Your task to perform on an android device: change notifications settings Image 0: 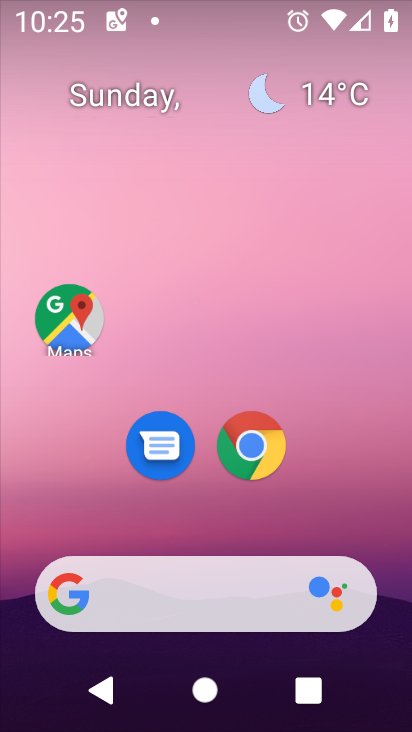
Step 0: drag from (219, 530) to (22, 284)
Your task to perform on an android device: change notifications settings Image 1: 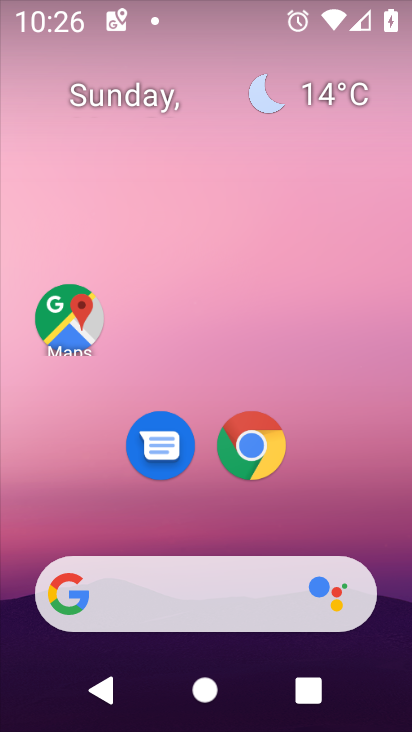
Step 1: drag from (176, 546) to (305, 5)
Your task to perform on an android device: change notifications settings Image 2: 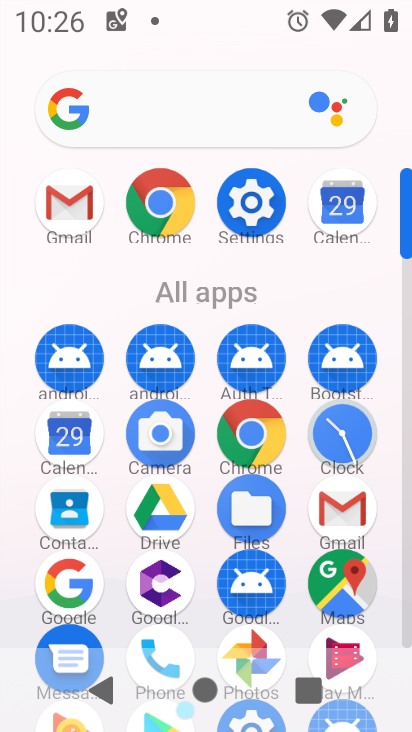
Step 2: click (253, 176)
Your task to perform on an android device: change notifications settings Image 3: 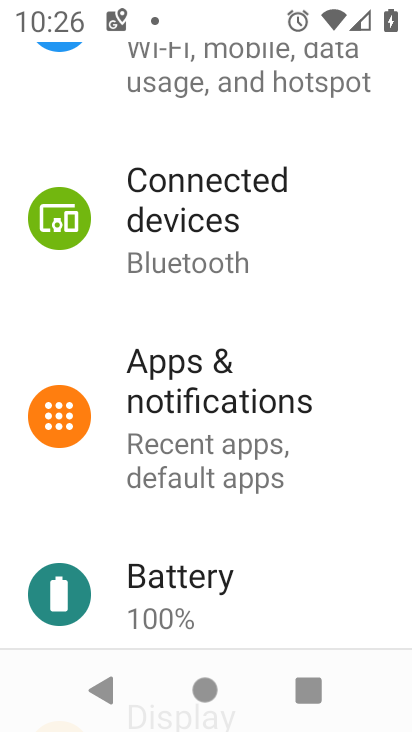
Step 3: drag from (190, 518) to (259, 90)
Your task to perform on an android device: change notifications settings Image 4: 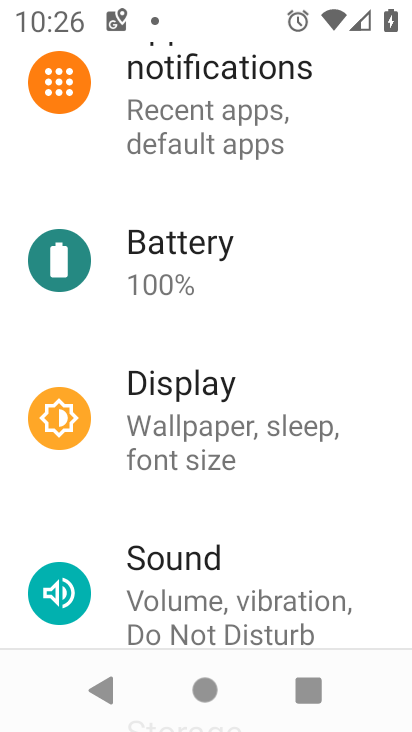
Step 4: drag from (237, 148) to (219, 492)
Your task to perform on an android device: change notifications settings Image 5: 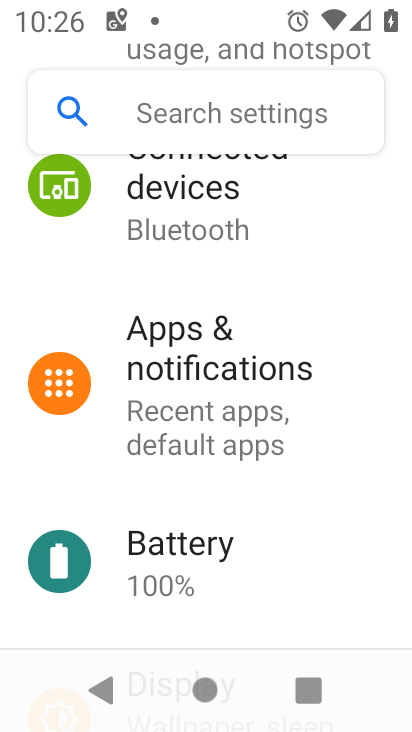
Step 5: click (159, 427)
Your task to perform on an android device: change notifications settings Image 6: 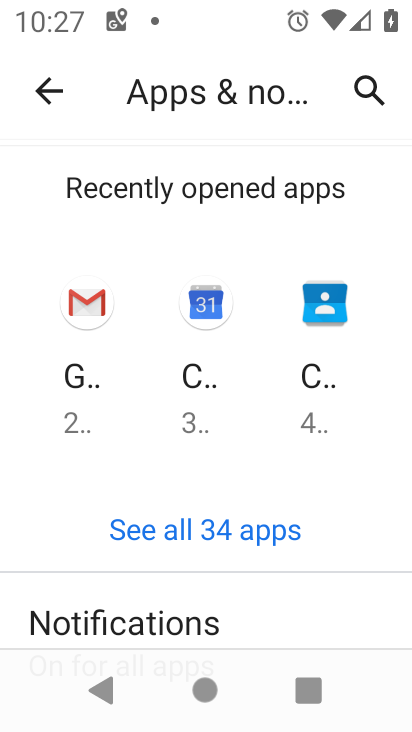
Step 6: click (170, 617)
Your task to perform on an android device: change notifications settings Image 7: 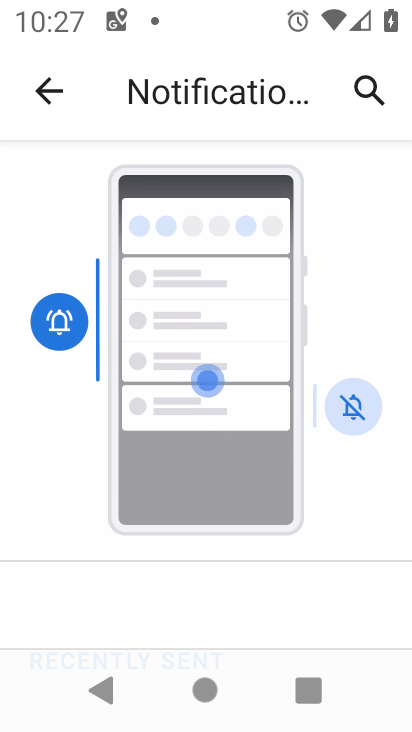
Step 7: drag from (174, 591) to (275, 3)
Your task to perform on an android device: change notifications settings Image 8: 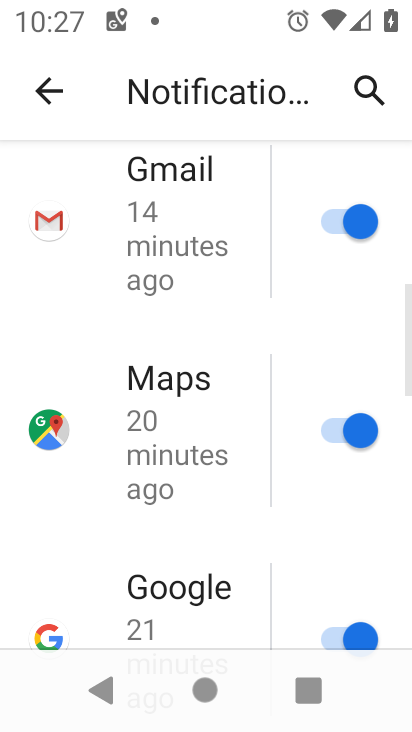
Step 8: drag from (222, 471) to (56, 16)
Your task to perform on an android device: change notifications settings Image 9: 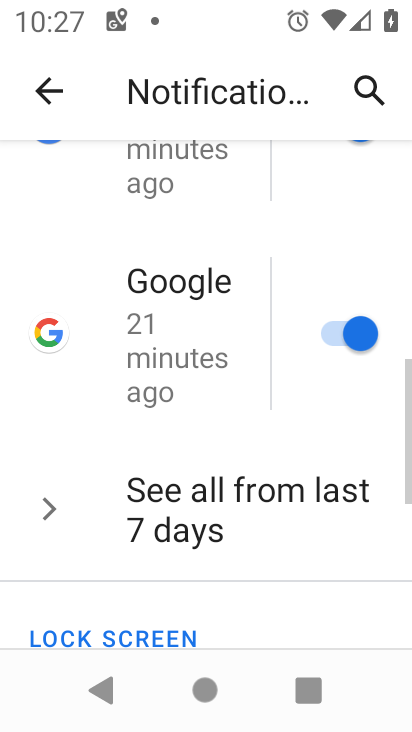
Step 9: drag from (199, 524) to (296, 153)
Your task to perform on an android device: change notifications settings Image 10: 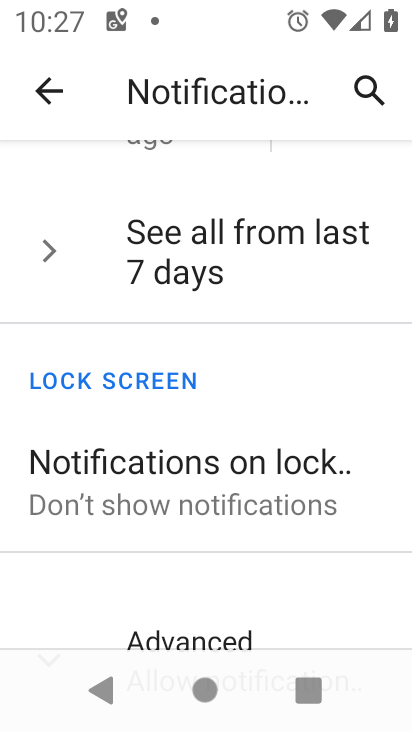
Step 10: drag from (293, 331) to (331, 685)
Your task to perform on an android device: change notifications settings Image 11: 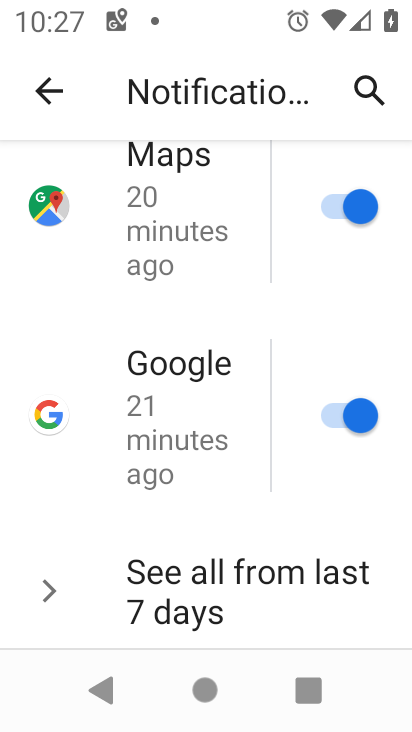
Step 11: click (355, 400)
Your task to perform on an android device: change notifications settings Image 12: 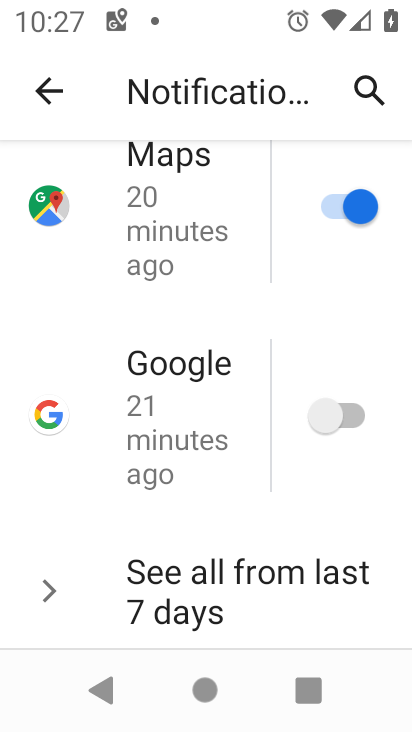
Step 12: task complete